Your task to perform on an android device: Open Chrome and go to the settings page Image 0: 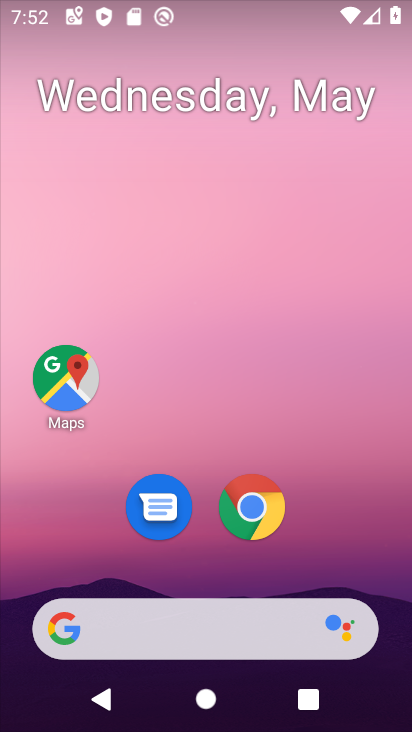
Step 0: click (262, 499)
Your task to perform on an android device: Open Chrome and go to the settings page Image 1: 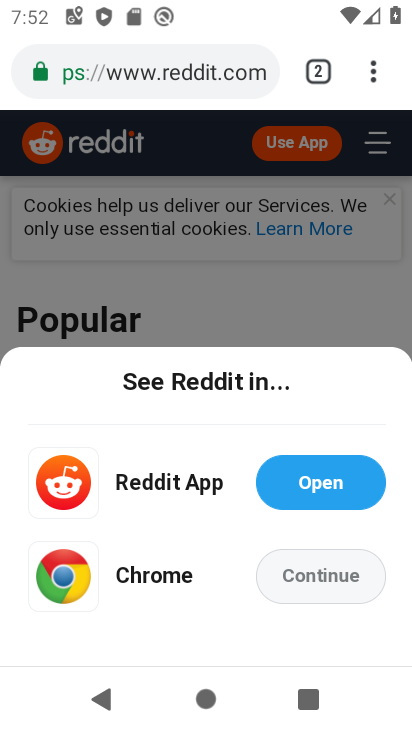
Step 1: click (377, 64)
Your task to perform on an android device: Open Chrome and go to the settings page Image 2: 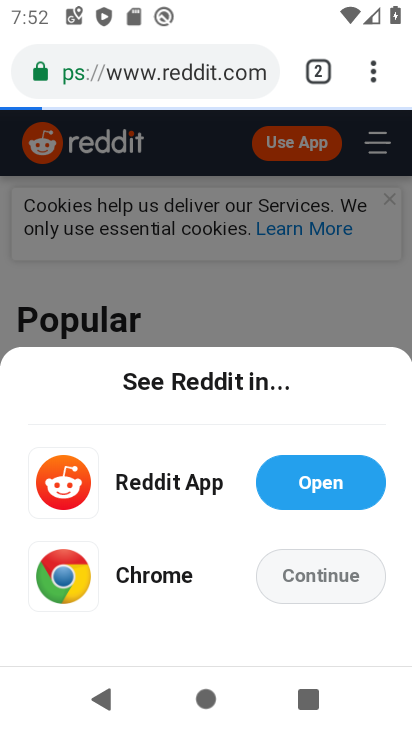
Step 2: click (374, 66)
Your task to perform on an android device: Open Chrome and go to the settings page Image 3: 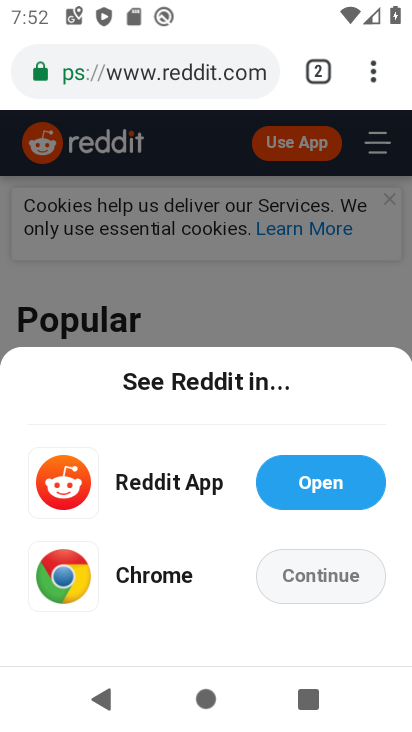
Step 3: click (371, 85)
Your task to perform on an android device: Open Chrome and go to the settings page Image 4: 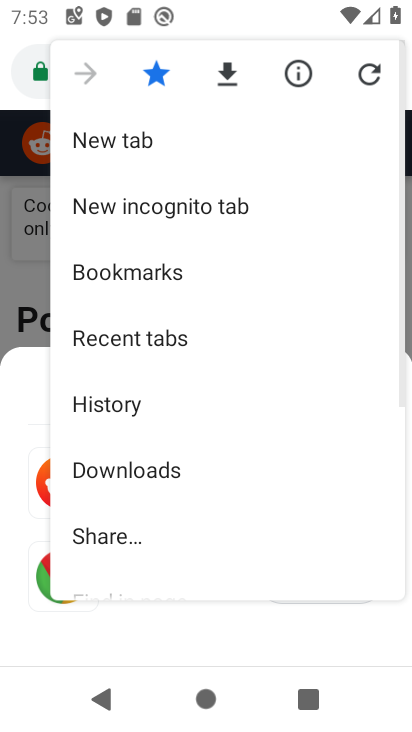
Step 4: drag from (174, 552) to (191, 297)
Your task to perform on an android device: Open Chrome and go to the settings page Image 5: 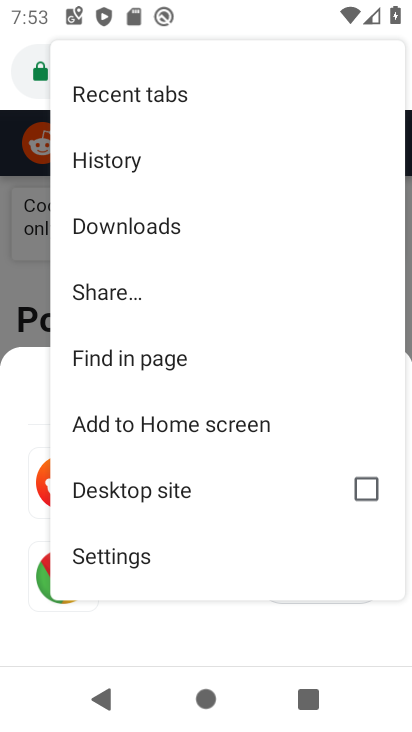
Step 5: click (172, 551)
Your task to perform on an android device: Open Chrome and go to the settings page Image 6: 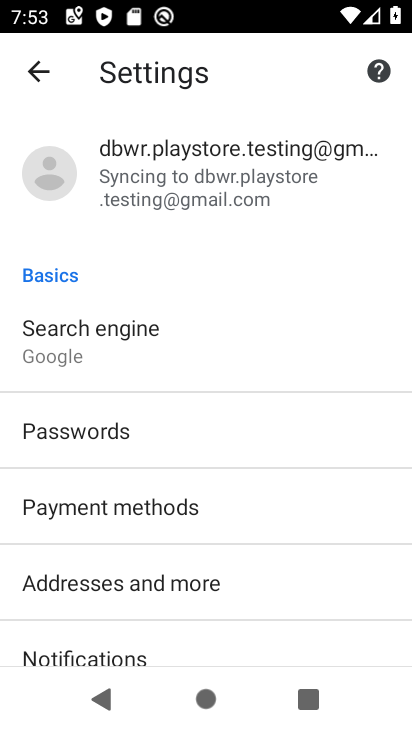
Step 6: task complete